Your task to perform on an android device: open a new tab in the chrome app Image 0: 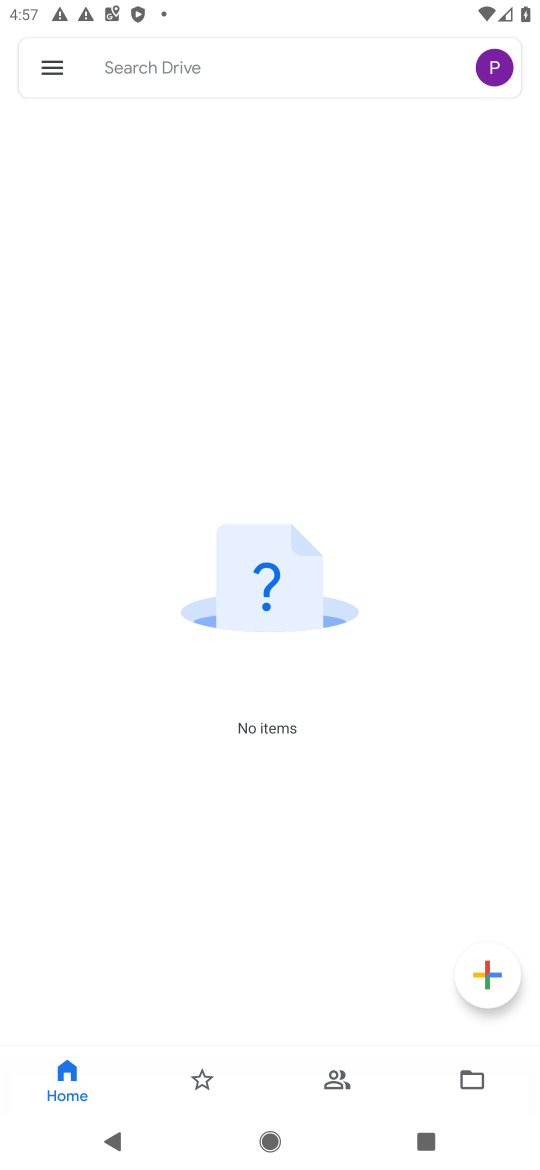
Step 0: press home button
Your task to perform on an android device: open a new tab in the chrome app Image 1: 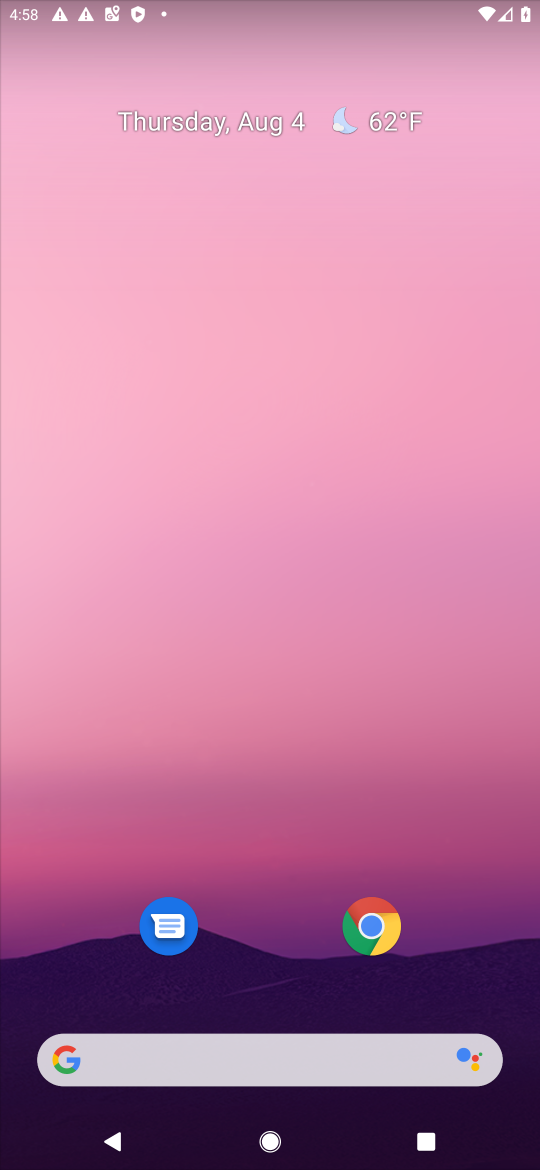
Step 1: drag from (257, 1008) to (237, 328)
Your task to perform on an android device: open a new tab in the chrome app Image 2: 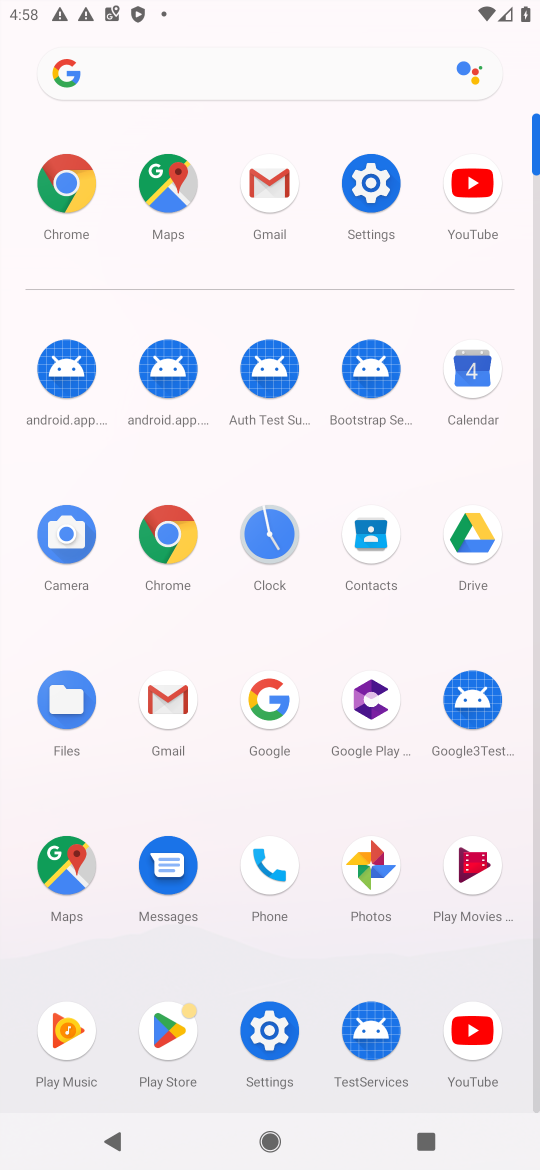
Step 2: click (58, 182)
Your task to perform on an android device: open a new tab in the chrome app Image 3: 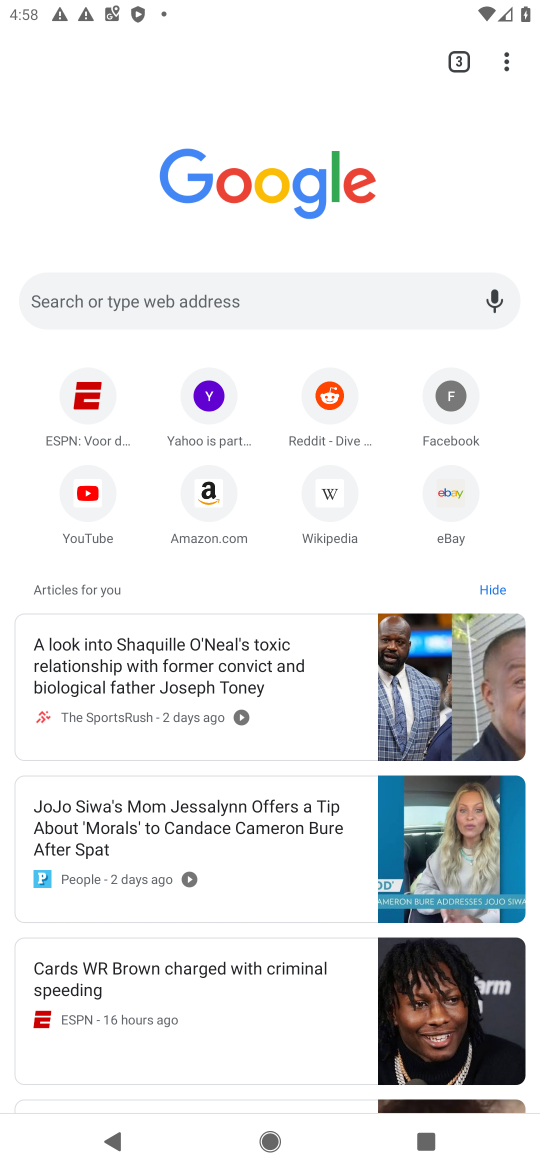
Step 3: click (454, 66)
Your task to perform on an android device: open a new tab in the chrome app Image 4: 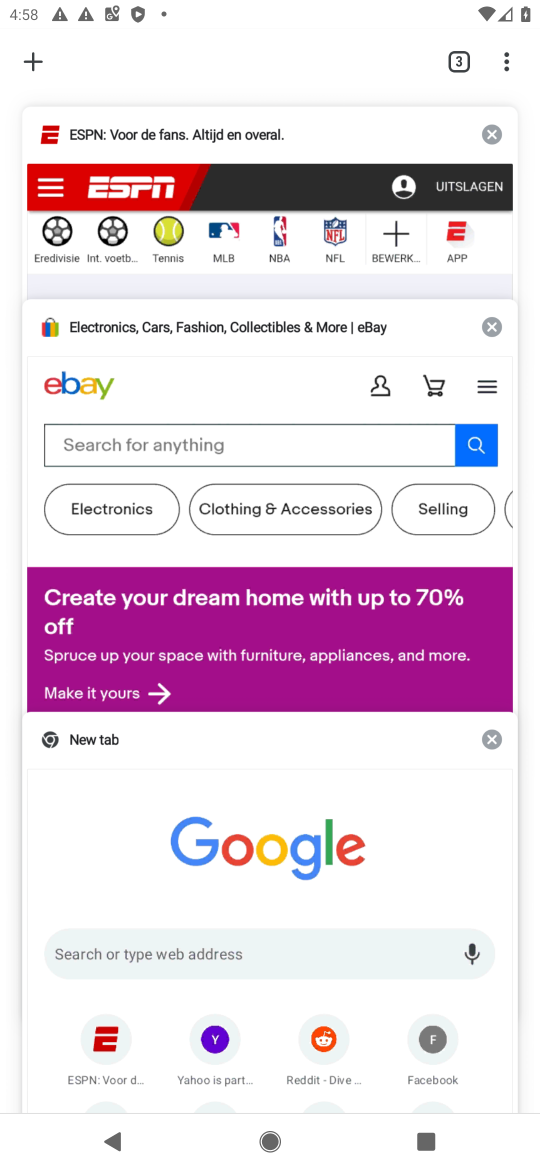
Step 4: click (26, 64)
Your task to perform on an android device: open a new tab in the chrome app Image 5: 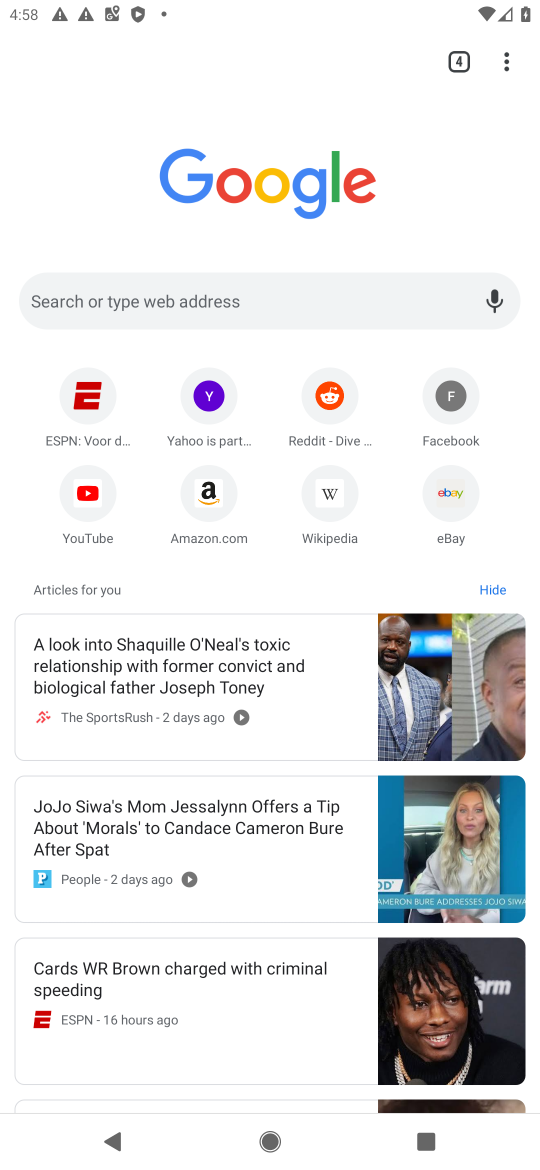
Step 5: task complete